Your task to perform on an android device: turn pop-ups off in chrome Image 0: 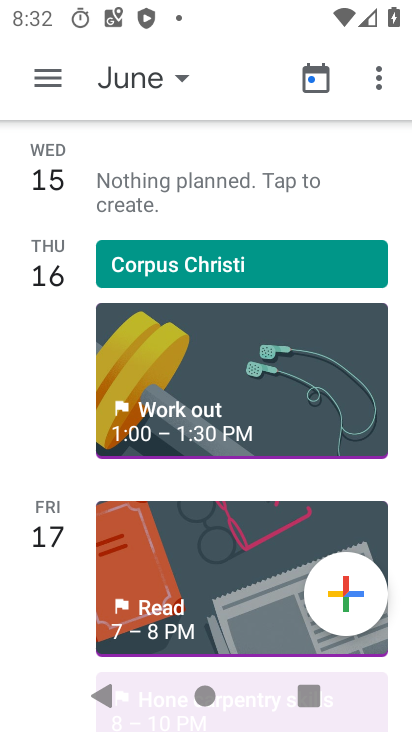
Step 0: press home button
Your task to perform on an android device: turn pop-ups off in chrome Image 1: 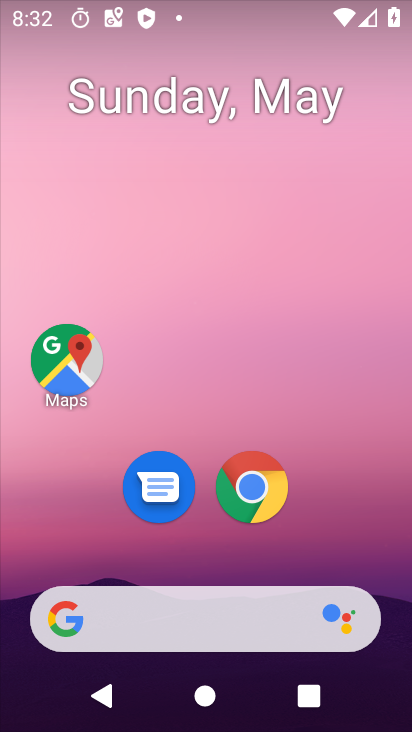
Step 1: click (253, 485)
Your task to perform on an android device: turn pop-ups off in chrome Image 2: 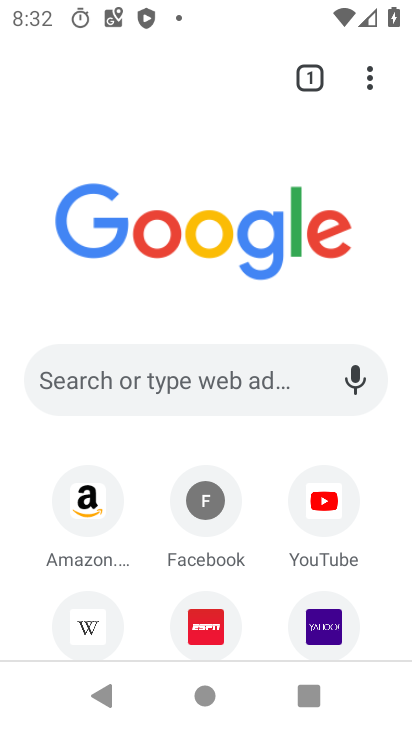
Step 2: click (370, 82)
Your task to perform on an android device: turn pop-ups off in chrome Image 3: 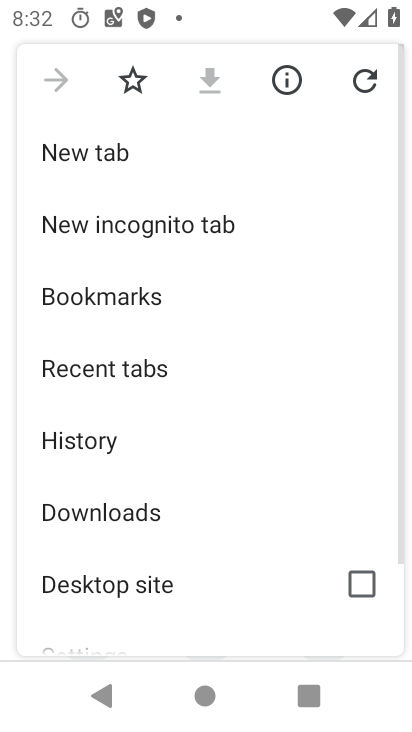
Step 3: drag from (110, 591) to (307, 110)
Your task to perform on an android device: turn pop-ups off in chrome Image 4: 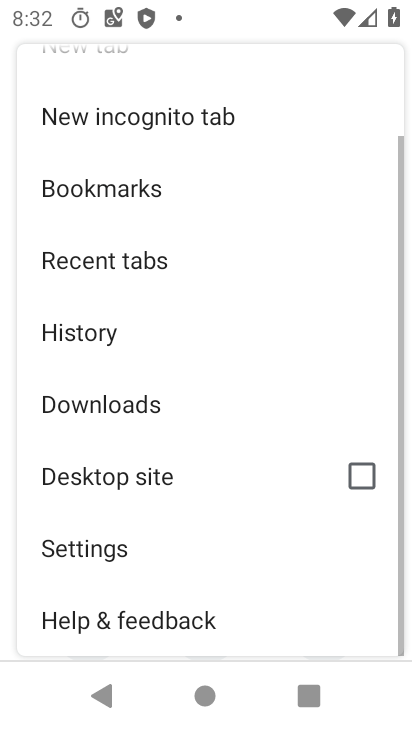
Step 4: click (94, 550)
Your task to perform on an android device: turn pop-ups off in chrome Image 5: 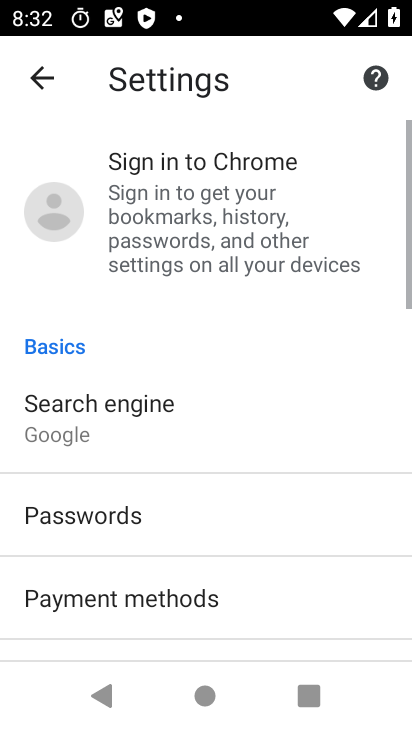
Step 5: drag from (173, 522) to (310, 93)
Your task to perform on an android device: turn pop-ups off in chrome Image 6: 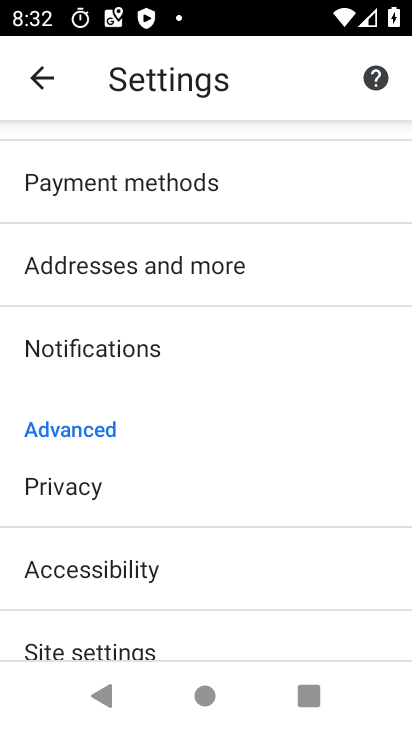
Step 6: click (185, 645)
Your task to perform on an android device: turn pop-ups off in chrome Image 7: 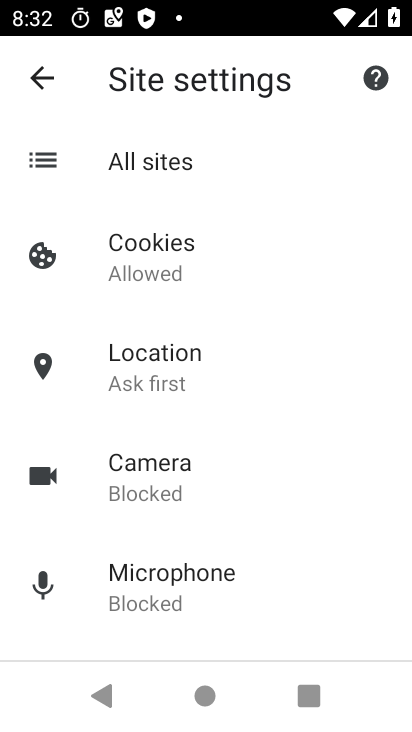
Step 7: drag from (79, 610) to (215, 160)
Your task to perform on an android device: turn pop-ups off in chrome Image 8: 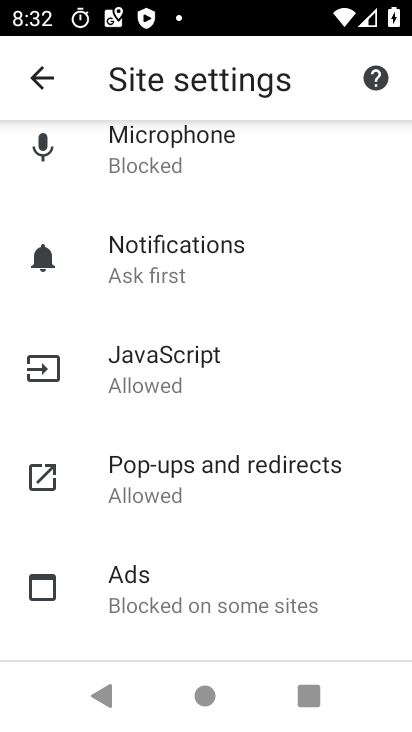
Step 8: click (164, 502)
Your task to perform on an android device: turn pop-ups off in chrome Image 9: 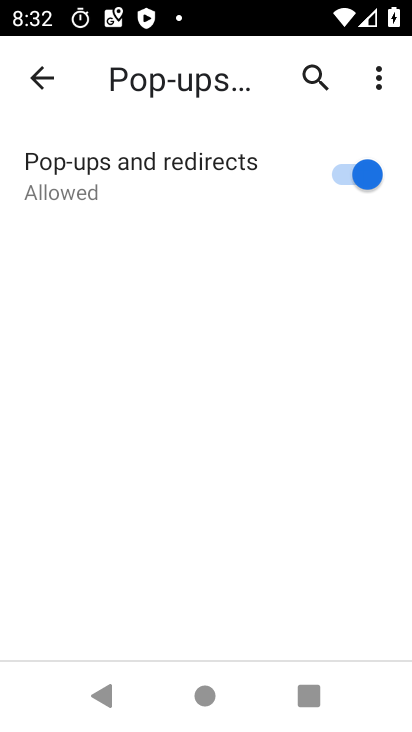
Step 9: click (377, 182)
Your task to perform on an android device: turn pop-ups off in chrome Image 10: 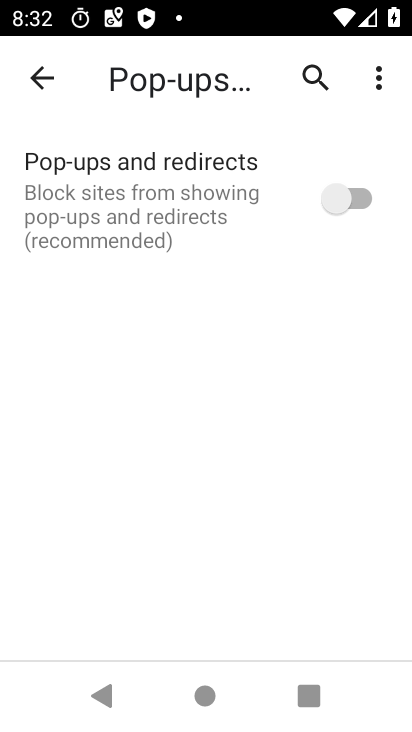
Step 10: task complete